Your task to perform on an android device: toggle javascript in the chrome app Image 0: 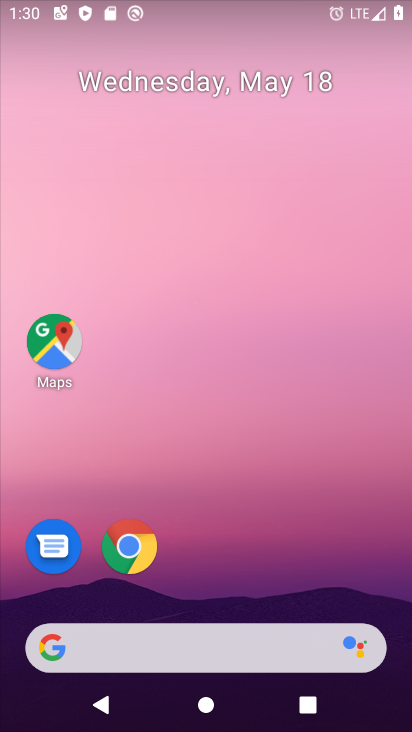
Step 0: drag from (267, 661) to (305, 21)
Your task to perform on an android device: toggle javascript in the chrome app Image 1: 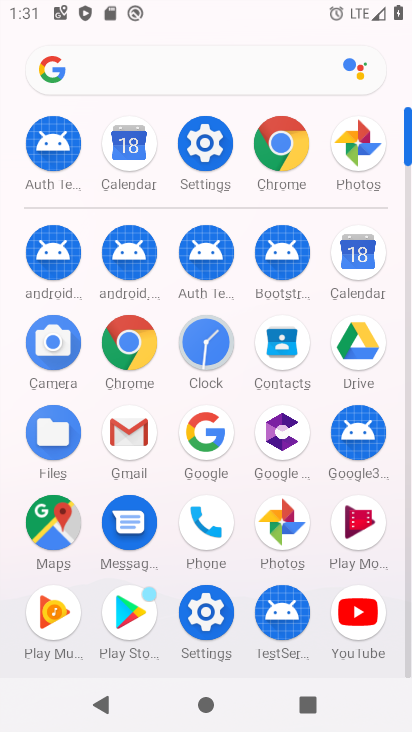
Step 1: click (123, 357)
Your task to perform on an android device: toggle javascript in the chrome app Image 2: 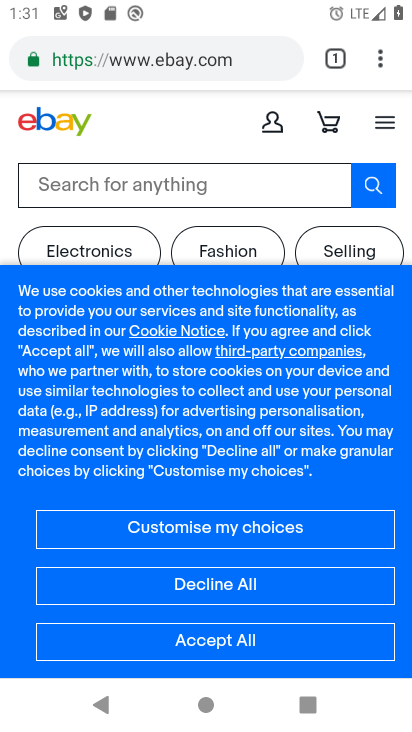
Step 2: click (382, 63)
Your task to perform on an android device: toggle javascript in the chrome app Image 3: 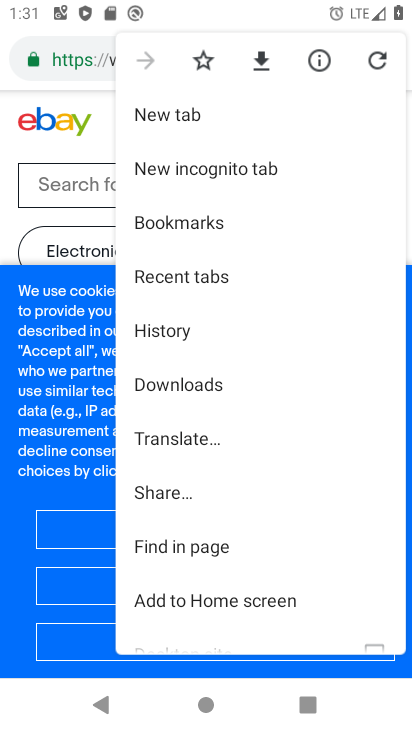
Step 3: drag from (215, 478) to (231, 107)
Your task to perform on an android device: toggle javascript in the chrome app Image 4: 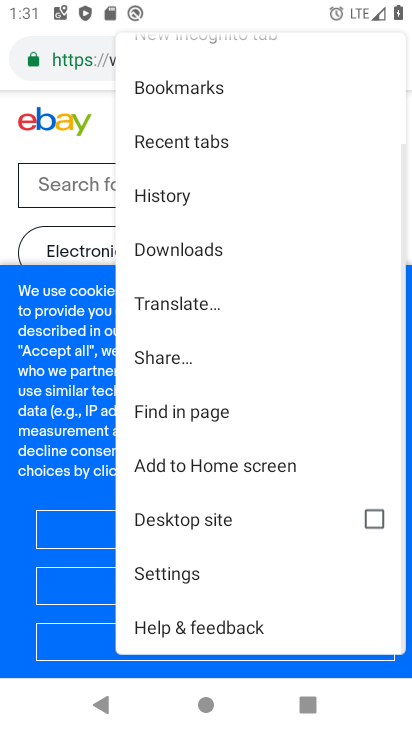
Step 4: click (147, 572)
Your task to perform on an android device: toggle javascript in the chrome app Image 5: 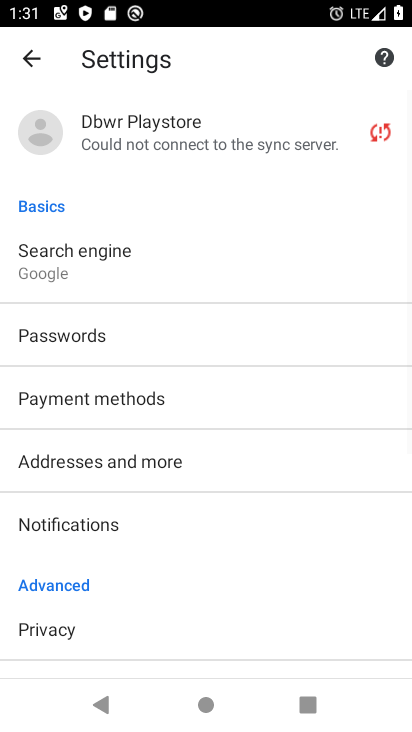
Step 5: drag from (162, 569) to (181, 330)
Your task to perform on an android device: toggle javascript in the chrome app Image 6: 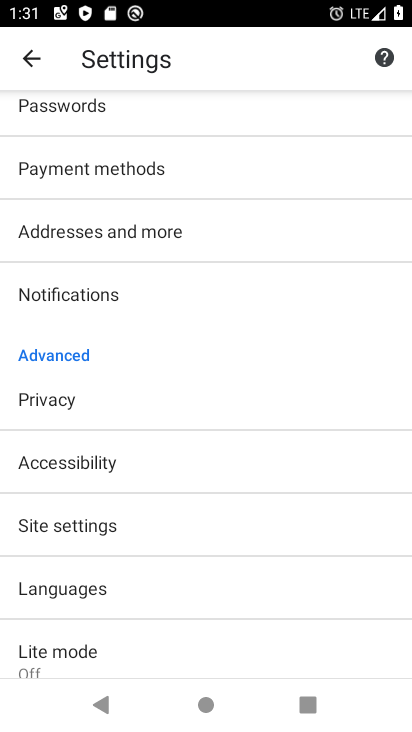
Step 6: click (132, 530)
Your task to perform on an android device: toggle javascript in the chrome app Image 7: 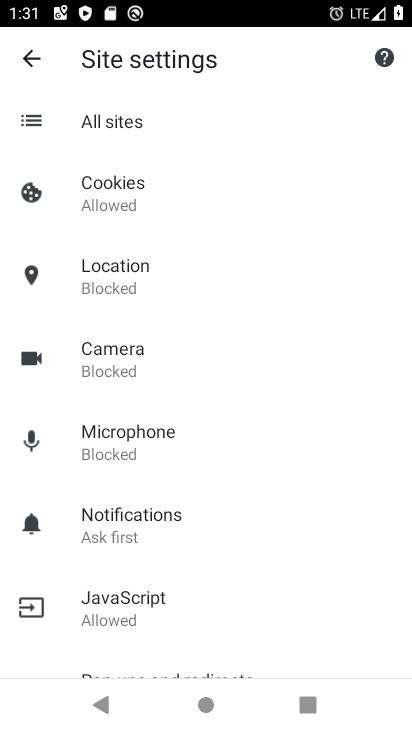
Step 7: click (191, 600)
Your task to perform on an android device: toggle javascript in the chrome app Image 8: 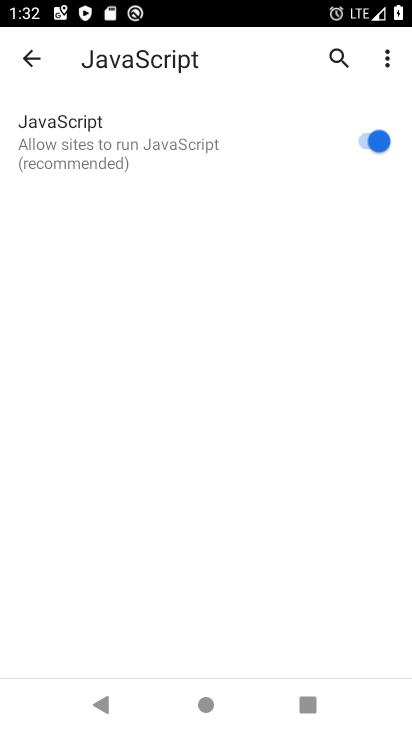
Step 8: click (338, 153)
Your task to perform on an android device: toggle javascript in the chrome app Image 9: 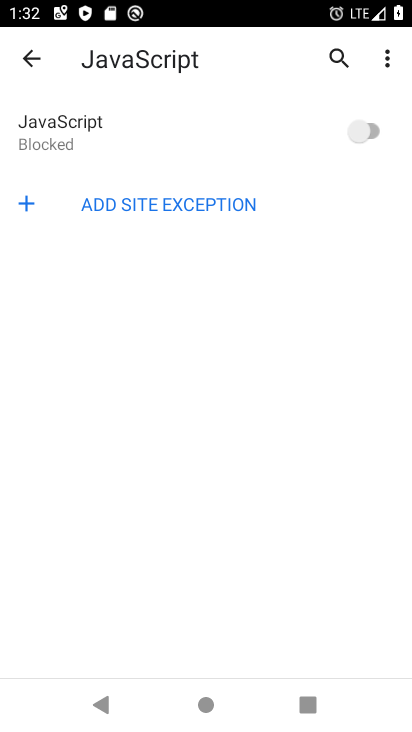
Step 9: task complete